Your task to perform on an android device: change timer sound Image 0: 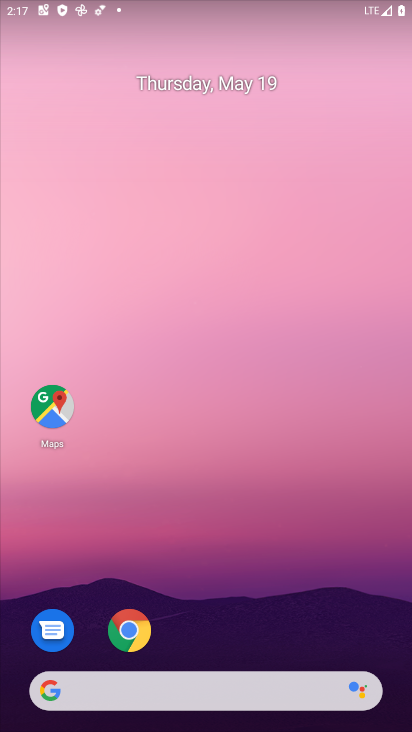
Step 0: drag from (389, 593) to (343, 125)
Your task to perform on an android device: change timer sound Image 1: 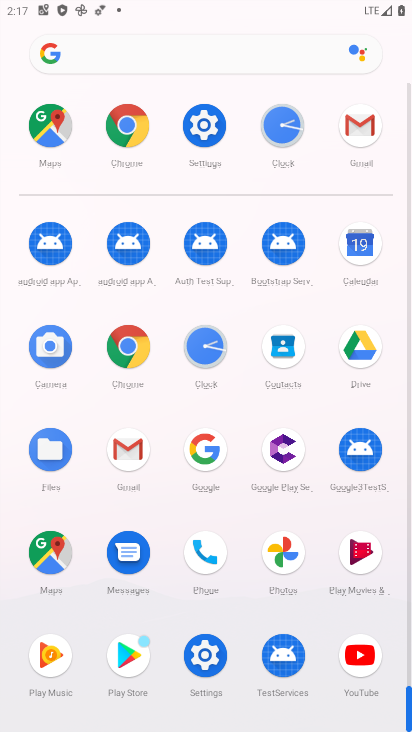
Step 1: click (202, 342)
Your task to perform on an android device: change timer sound Image 2: 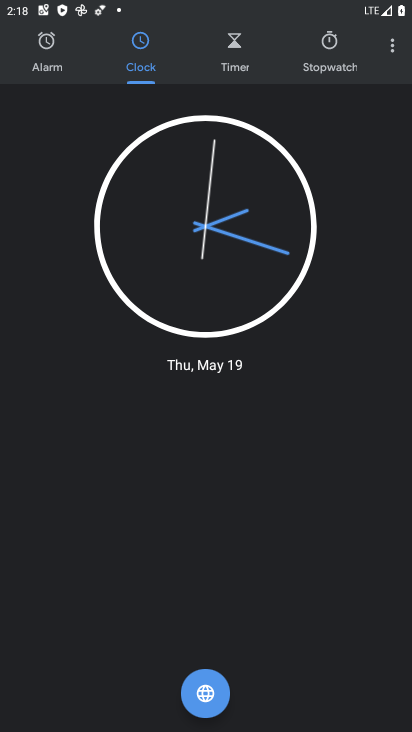
Step 2: click (389, 49)
Your task to perform on an android device: change timer sound Image 3: 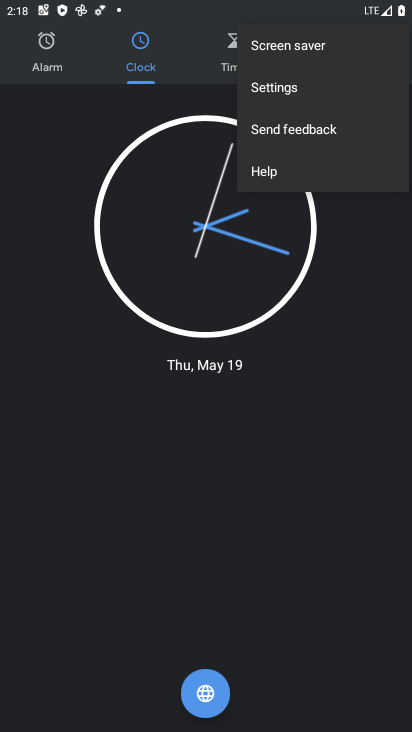
Step 3: click (275, 81)
Your task to perform on an android device: change timer sound Image 4: 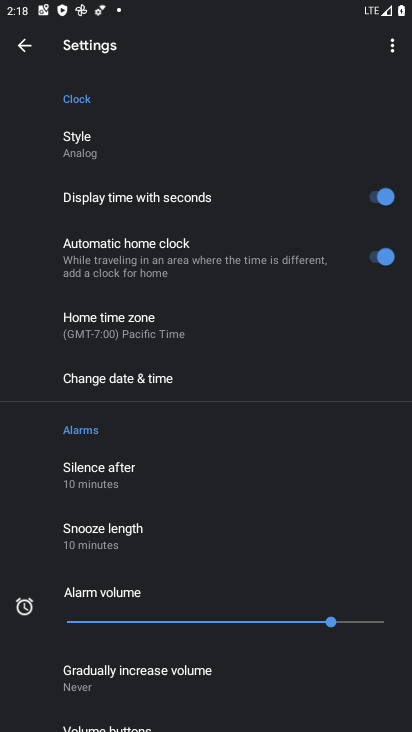
Step 4: drag from (223, 587) to (268, 240)
Your task to perform on an android device: change timer sound Image 5: 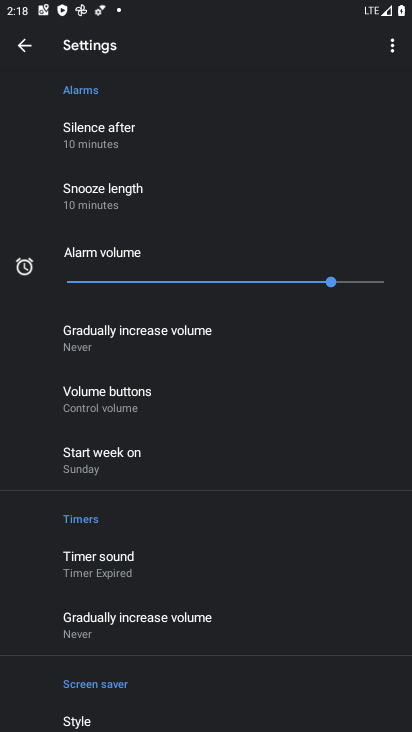
Step 5: drag from (220, 620) to (224, 413)
Your task to perform on an android device: change timer sound Image 6: 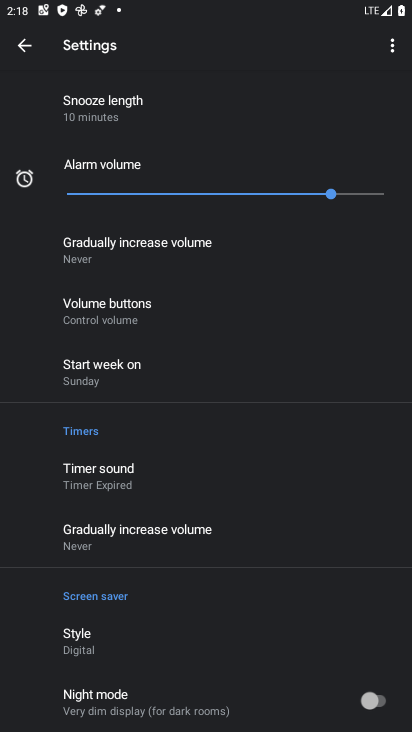
Step 6: click (87, 476)
Your task to perform on an android device: change timer sound Image 7: 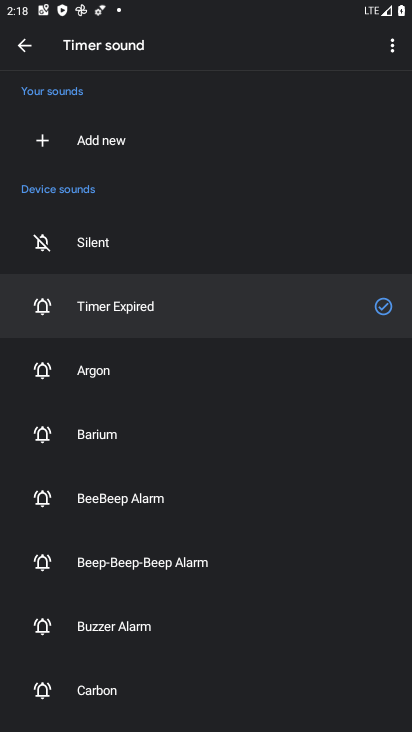
Step 7: click (83, 496)
Your task to perform on an android device: change timer sound Image 8: 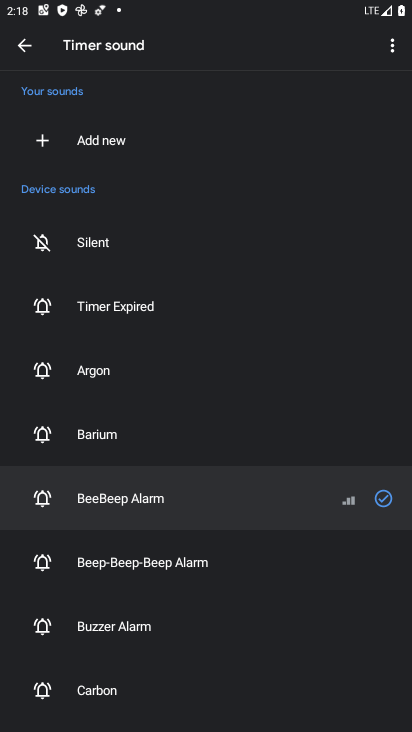
Step 8: task complete